Your task to perform on an android device: turn on improve location accuracy Image 0: 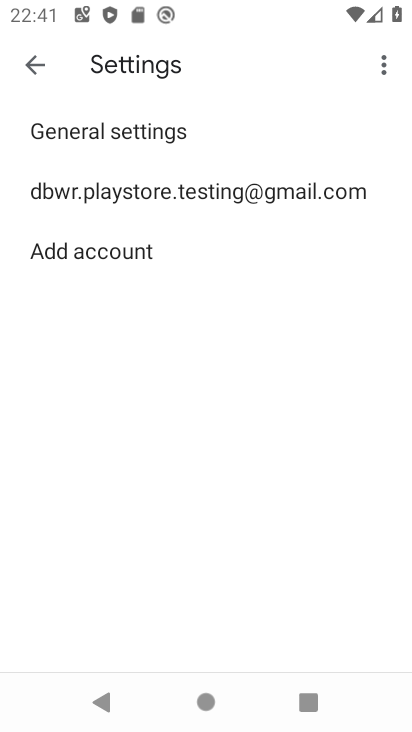
Step 0: press home button
Your task to perform on an android device: turn on improve location accuracy Image 1: 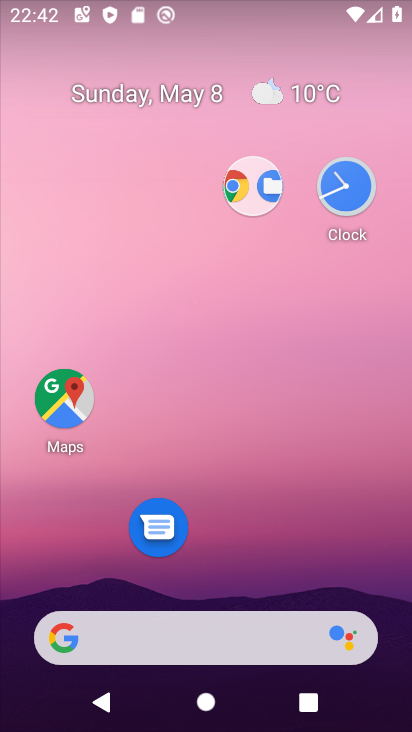
Step 1: drag from (239, 485) to (304, 115)
Your task to perform on an android device: turn on improve location accuracy Image 2: 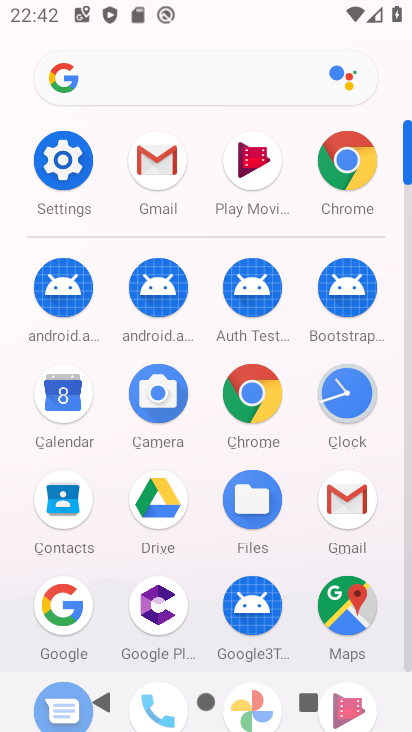
Step 2: click (70, 168)
Your task to perform on an android device: turn on improve location accuracy Image 3: 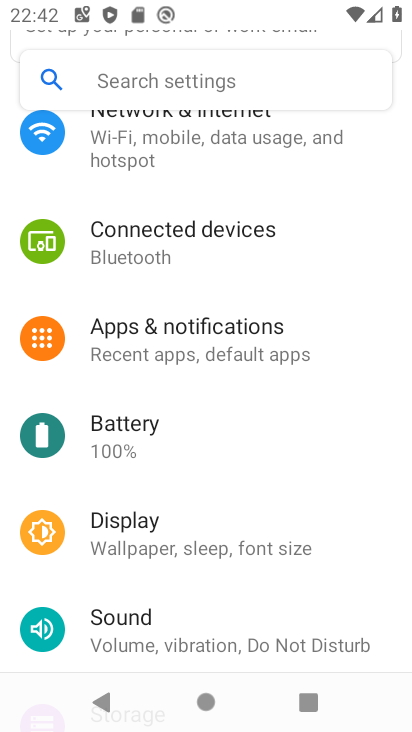
Step 3: drag from (225, 397) to (250, 183)
Your task to perform on an android device: turn on improve location accuracy Image 4: 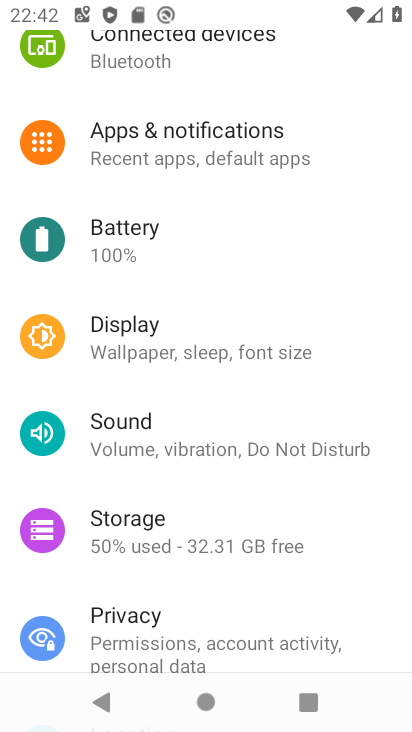
Step 4: drag from (168, 616) to (267, 240)
Your task to perform on an android device: turn on improve location accuracy Image 5: 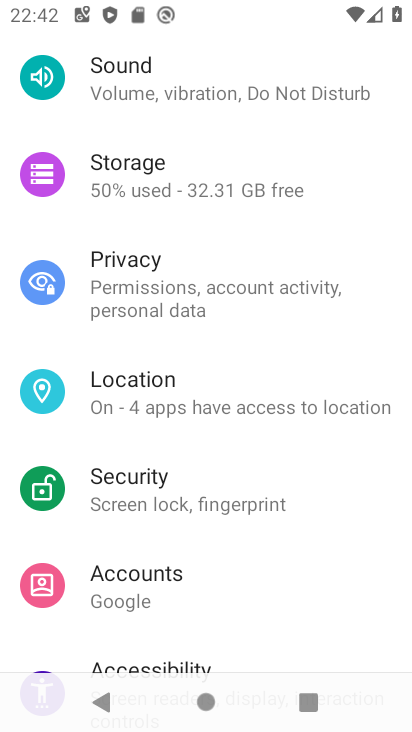
Step 5: click (205, 408)
Your task to perform on an android device: turn on improve location accuracy Image 6: 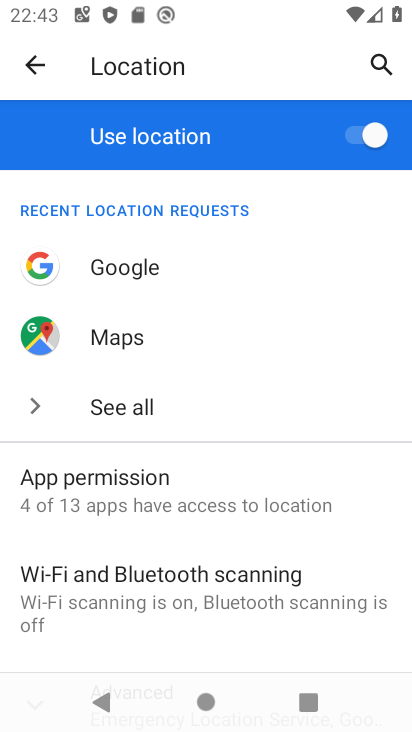
Step 6: drag from (264, 610) to (282, 247)
Your task to perform on an android device: turn on improve location accuracy Image 7: 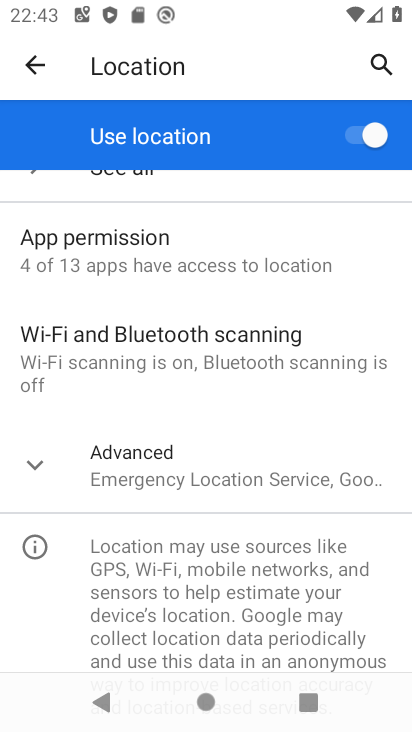
Step 7: click (212, 473)
Your task to perform on an android device: turn on improve location accuracy Image 8: 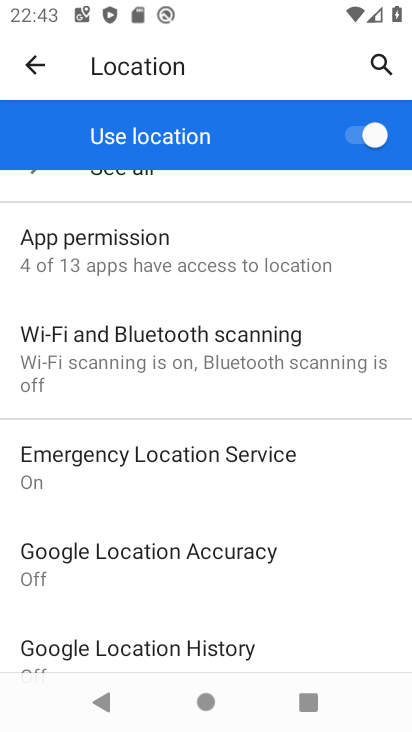
Step 8: drag from (281, 629) to (316, 366)
Your task to perform on an android device: turn on improve location accuracy Image 9: 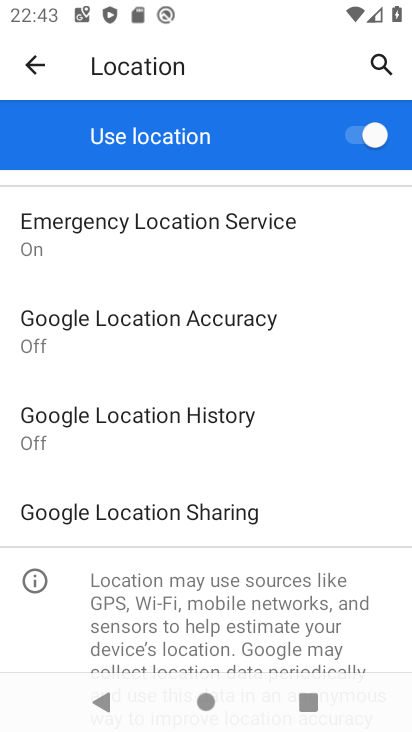
Step 9: click (153, 318)
Your task to perform on an android device: turn on improve location accuracy Image 10: 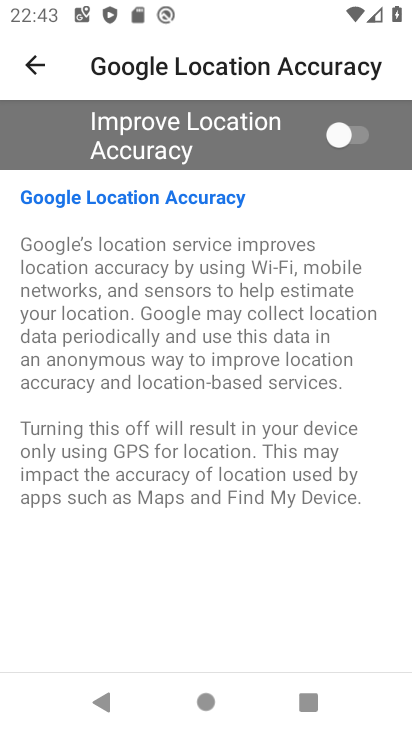
Step 10: click (361, 144)
Your task to perform on an android device: turn on improve location accuracy Image 11: 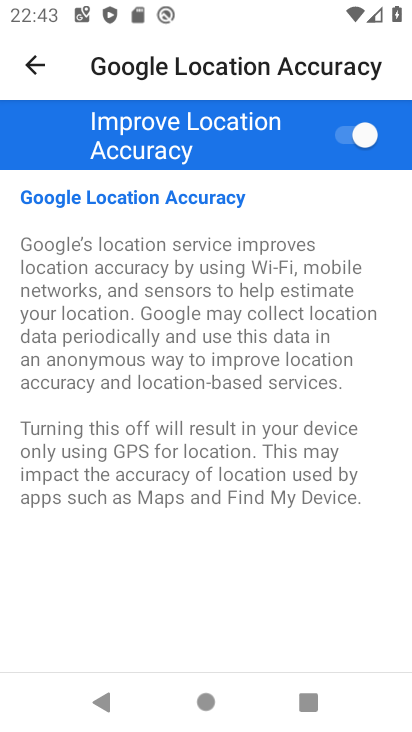
Step 11: task complete